Your task to perform on an android device: find photos in the google photos app Image 0: 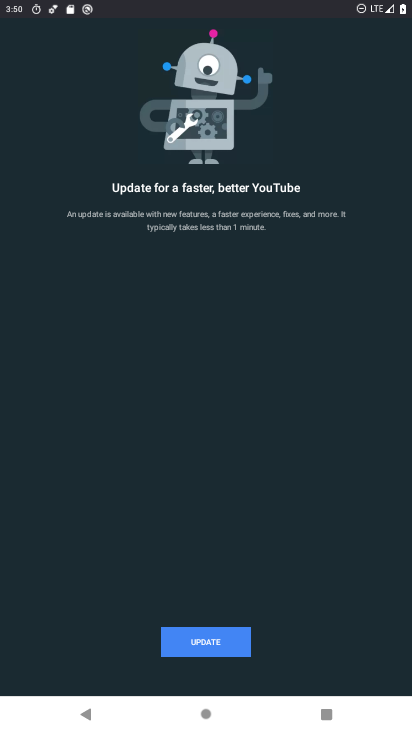
Step 0: press home button
Your task to perform on an android device: find photos in the google photos app Image 1: 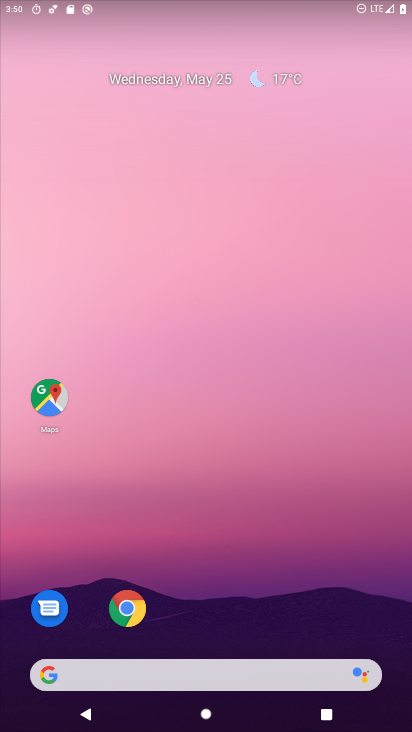
Step 1: drag from (261, 553) to (220, 159)
Your task to perform on an android device: find photos in the google photos app Image 2: 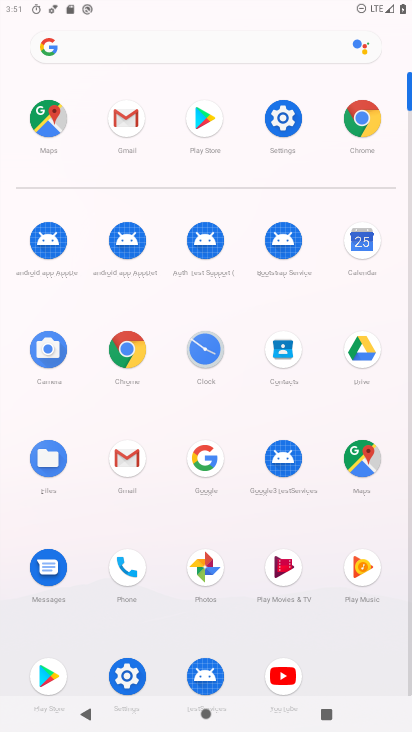
Step 2: click (200, 577)
Your task to perform on an android device: find photos in the google photos app Image 3: 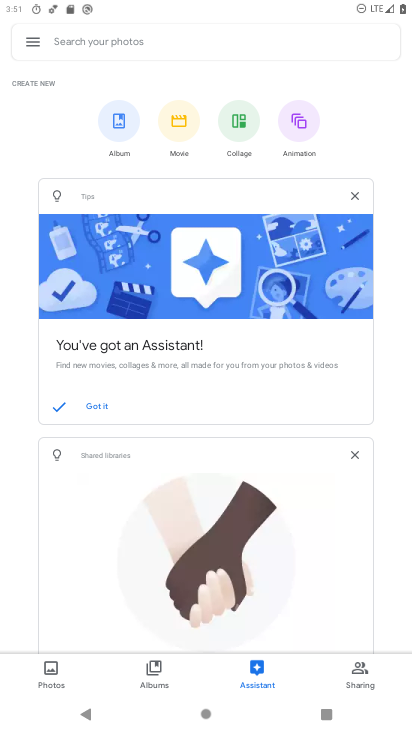
Step 3: click (41, 669)
Your task to perform on an android device: find photos in the google photos app Image 4: 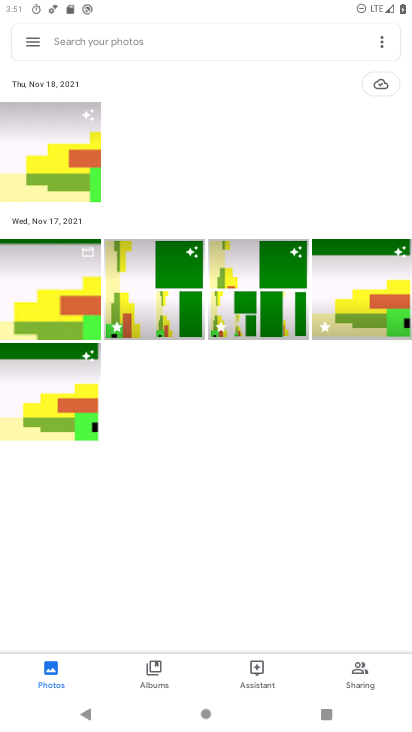
Step 4: task complete